Your task to perform on an android device: turn on bluetooth scan Image 0: 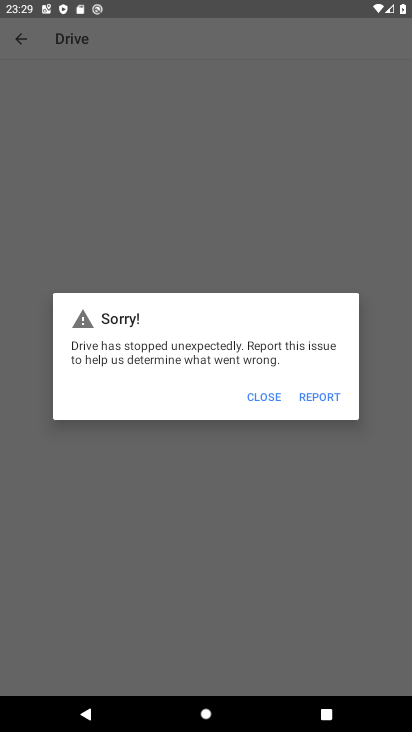
Step 0: press home button
Your task to perform on an android device: turn on bluetooth scan Image 1: 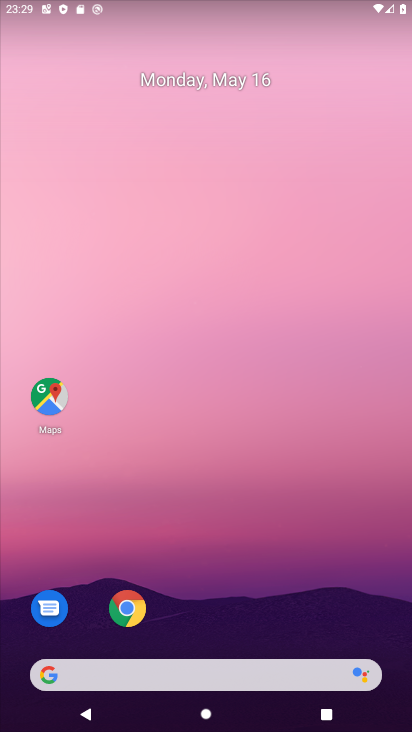
Step 1: drag from (182, 679) to (291, 117)
Your task to perform on an android device: turn on bluetooth scan Image 2: 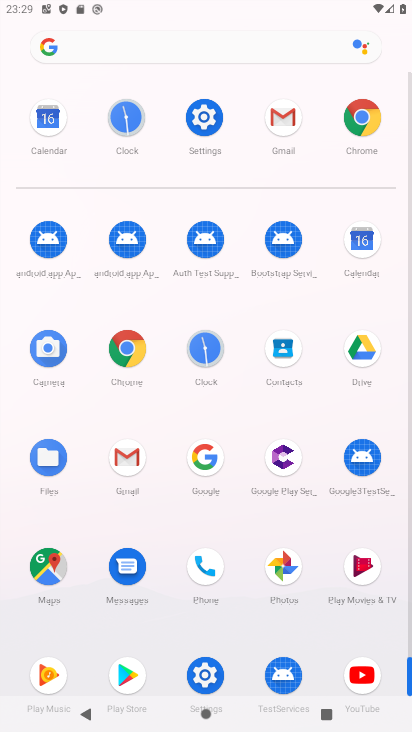
Step 2: click (192, 127)
Your task to perform on an android device: turn on bluetooth scan Image 3: 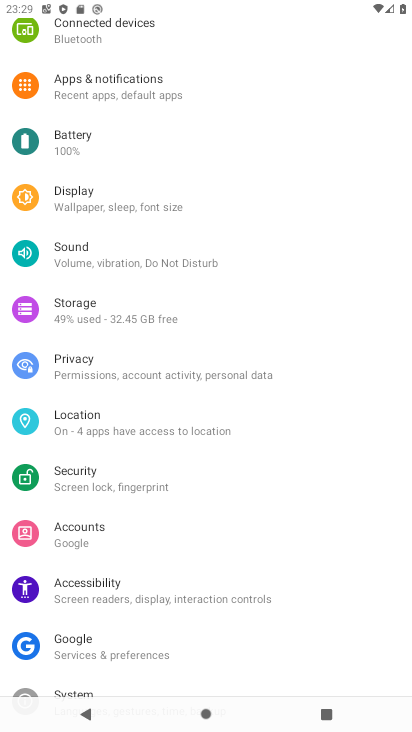
Step 3: click (98, 419)
Your task to perform on an android device: turn on bluetooth scan Image 4: 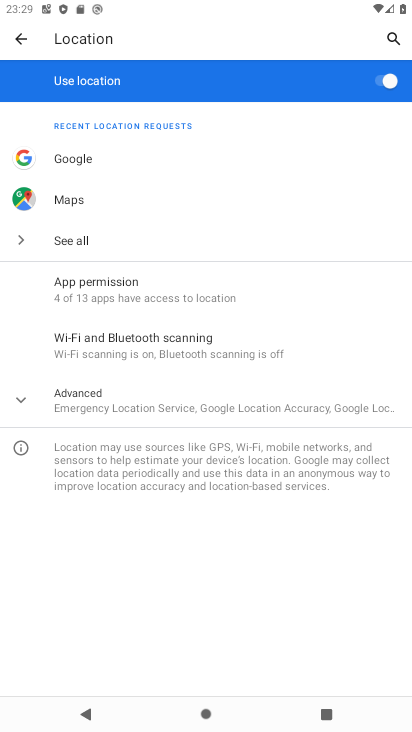
Step 4: click (157, 343)
Your task to perform on an android device: turn on bluetooth scan Image 5: 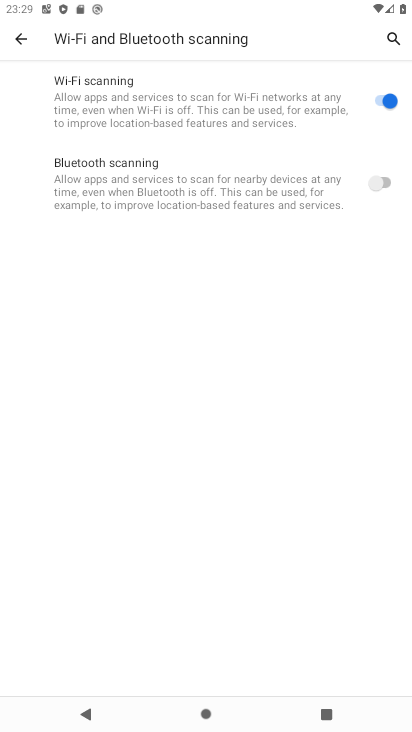
Step 5: click (384, 181)
Your task to perform on an android device: turn on bluetooth scan Image 6: 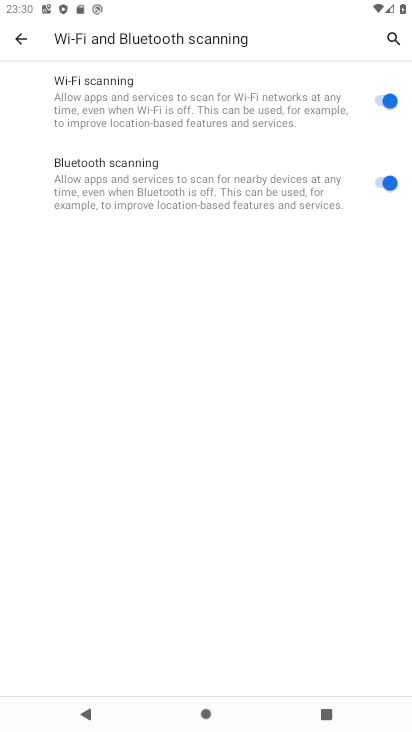
Step 6: task complete